Your task to perform on an android device: all mails in gmail Image 0: 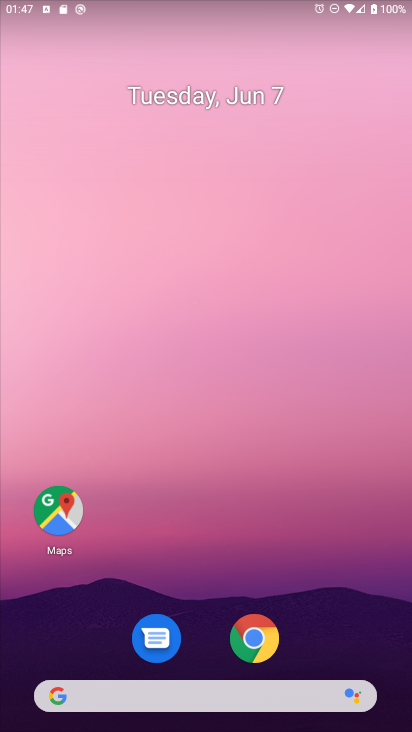
Step 0: drag from (206, 725) to (326, 179)
Your task to perform on an android device: all mails in gmail Image 1: 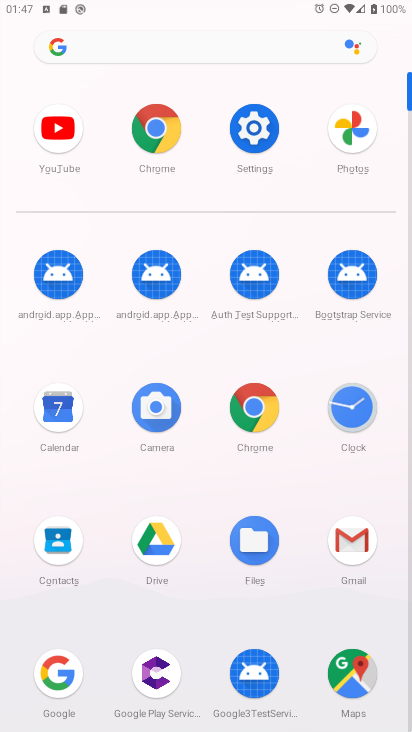
Step 1: click (365, 559)
Your task to perform on an android device: all mails in gmail Image 2: 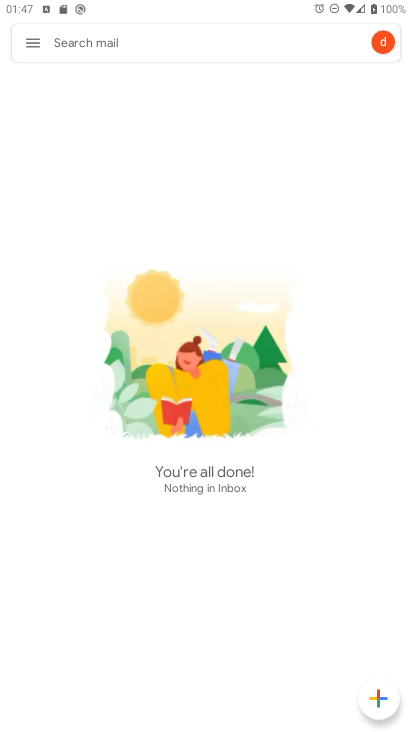
Step 2: click (65, 412)
Your task to perform on an android device: all mails in gmail Image 3: 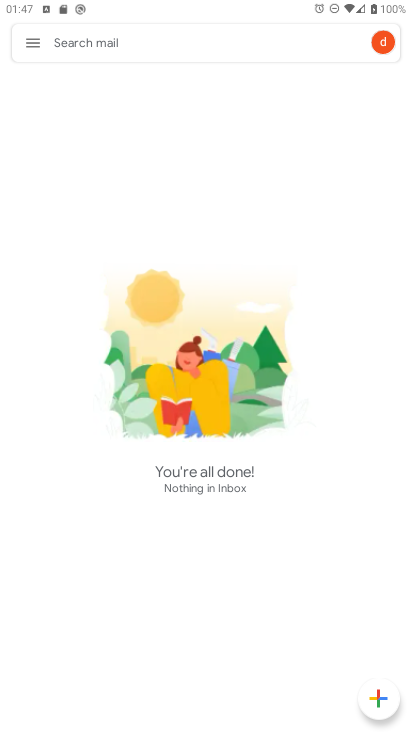
Step 3: click (32, 38)
Your task to perform on an android device: all mails in gmail Image 4: 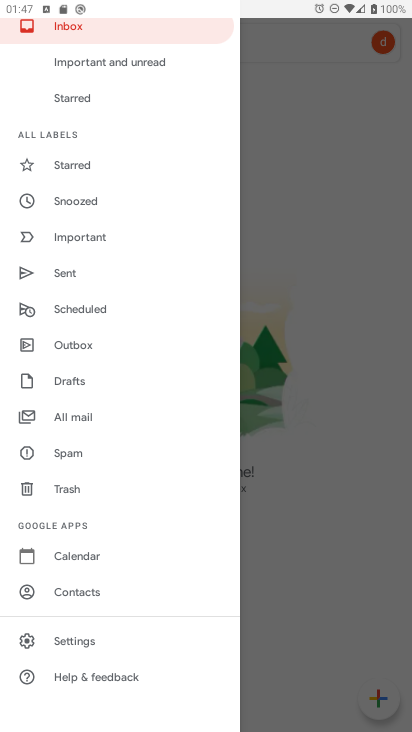
Step 4: click (97, 409)
Your task to perform on an android device: all mails in gmail Image 5: 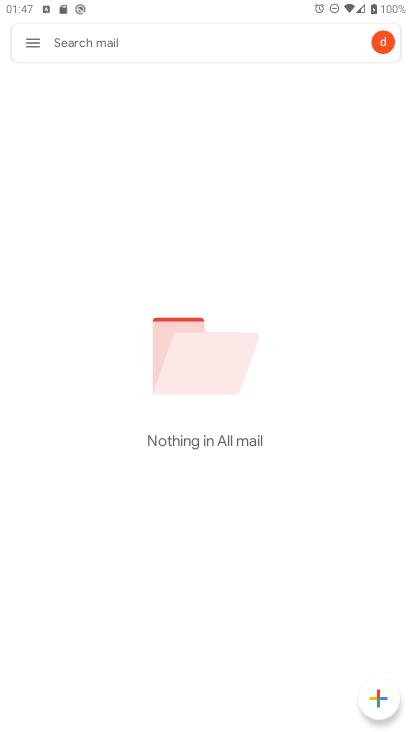
Step 5: task complete